Your task to perform on an android device: Open Maps and search for coffee Image 0: 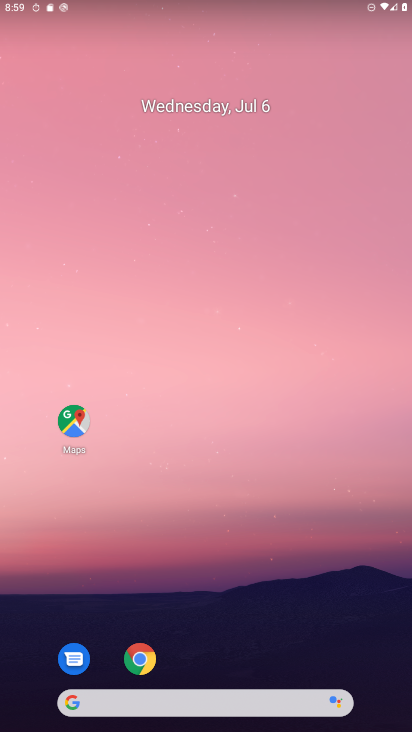
Step 0: drag from (368, 641) to (377, 173)
Your task to perform on an android device: Open Maps and search for coffee Image 1: 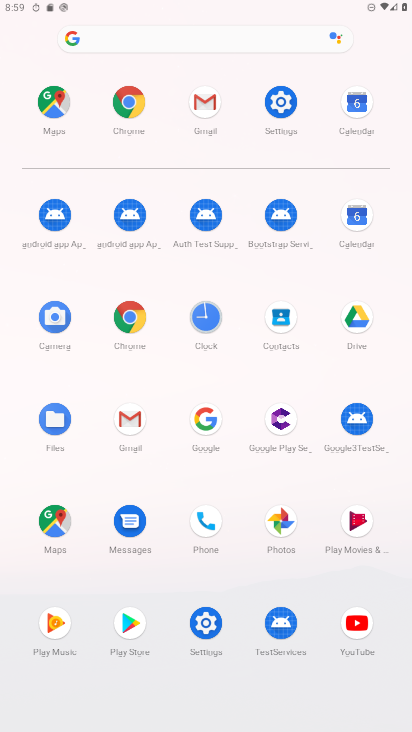
Step 1: click (67, 521)
Your task to perform on an android device: Open Maps and search for coffee Image 2: 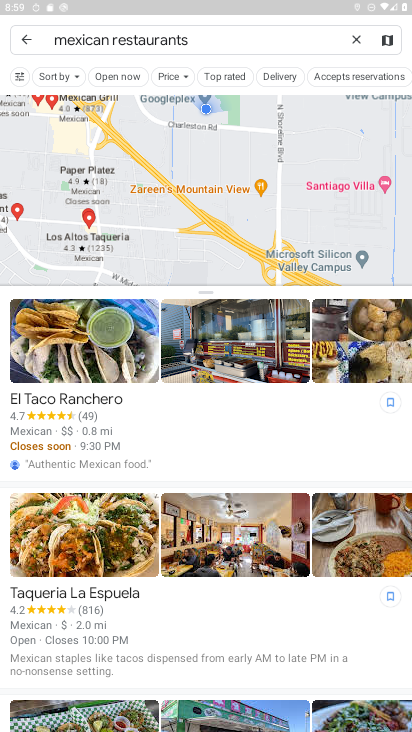
Step 2: press back button
Your task to perform on an android device: Open Maps and search for coffee Image 3: 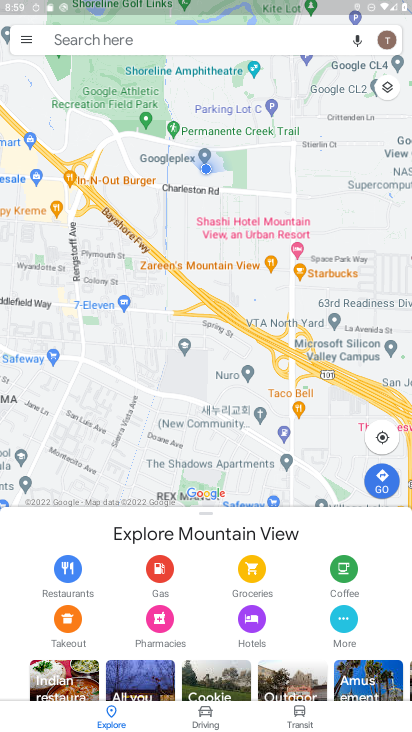
Step 3: click (135, 32)
Your task to perform on an android device: Open Maps and search for coffee Image 4: 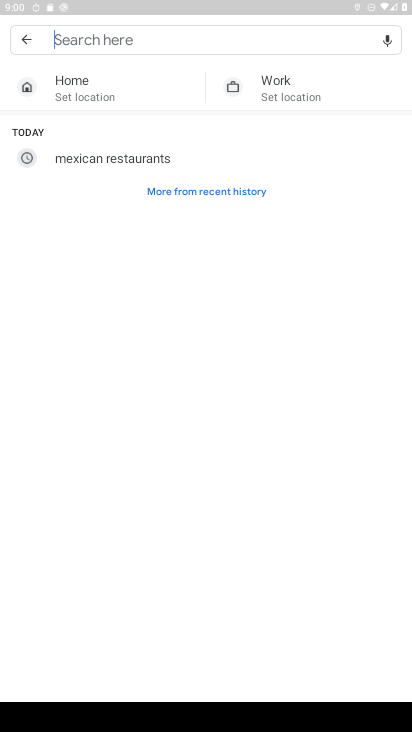
Step 4: type "coffee"
Your task to perform on an android device: Open Maps and search for coffee Image 5: 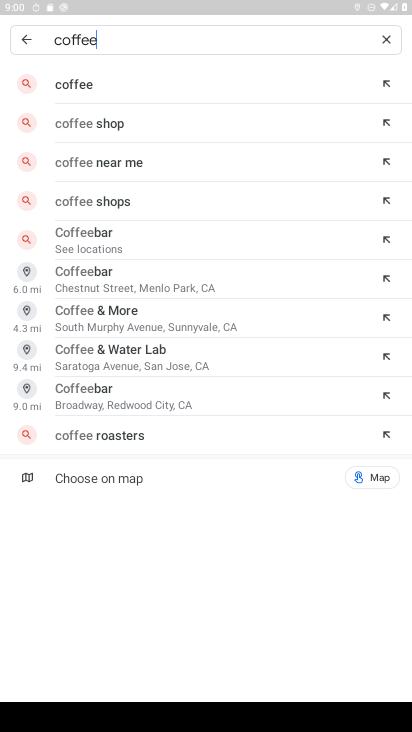
Step 5: click (184, 81)
Your task to perform on an android device: Open Maps and search for coffee Image 6: 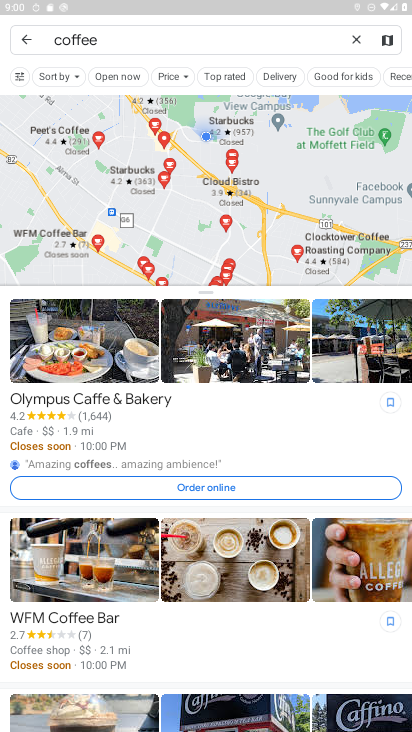
Step 6: task complete